Your task to perform on an android device: Open eBay Image 0: 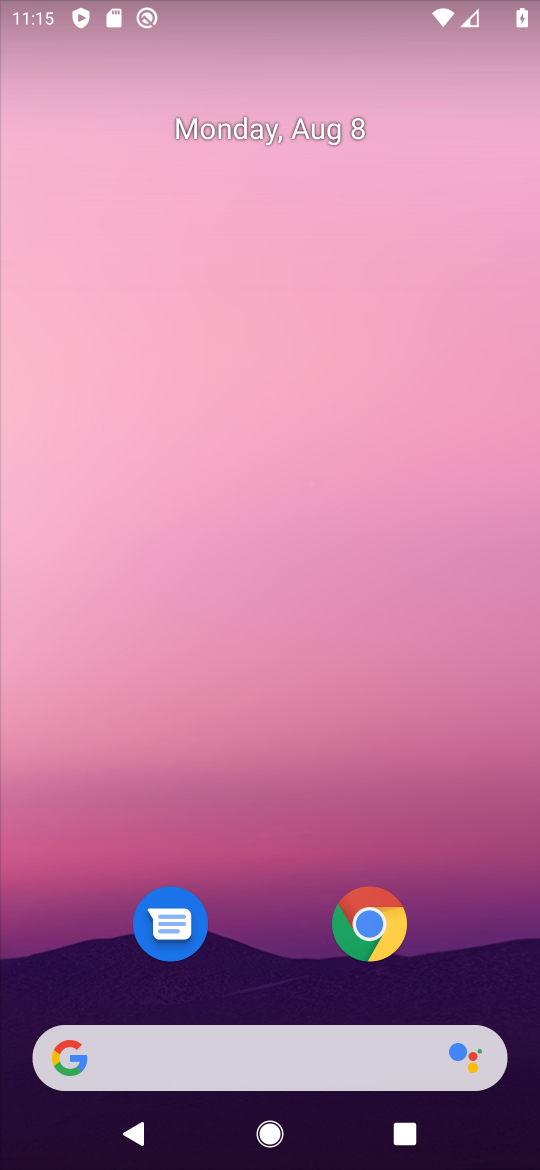
Step 0: click (370, 944)
Your task to perform on an android device: Open eBay Image 1: 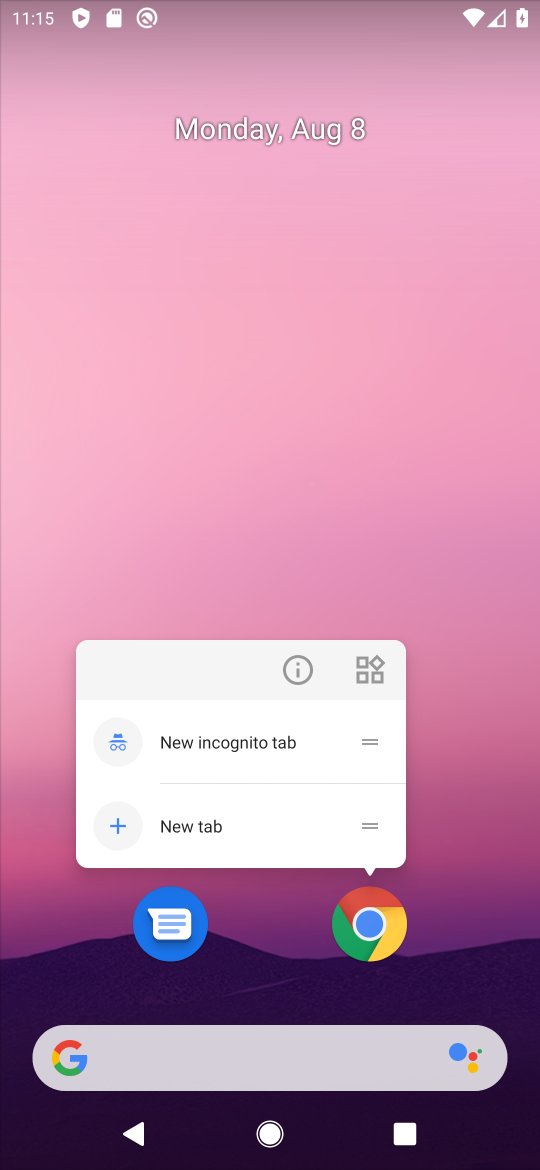
Step 1: click (370, 944)
Your task to perform on an android device: Open eBay Image 2: 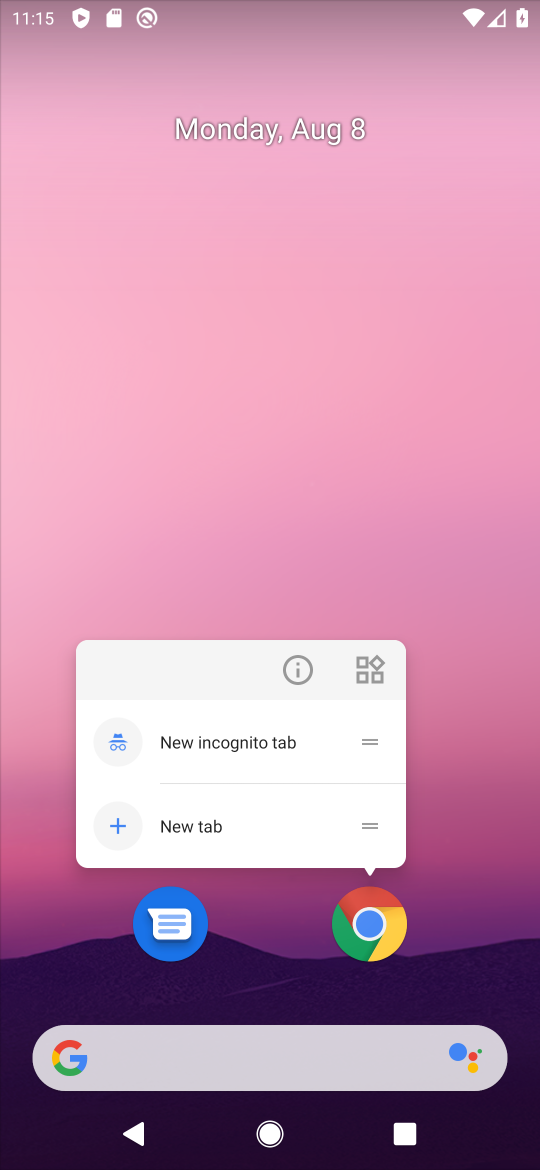
Step 2: click (371, 942)
Your task to perform on an android device: Open eBay Image 3: 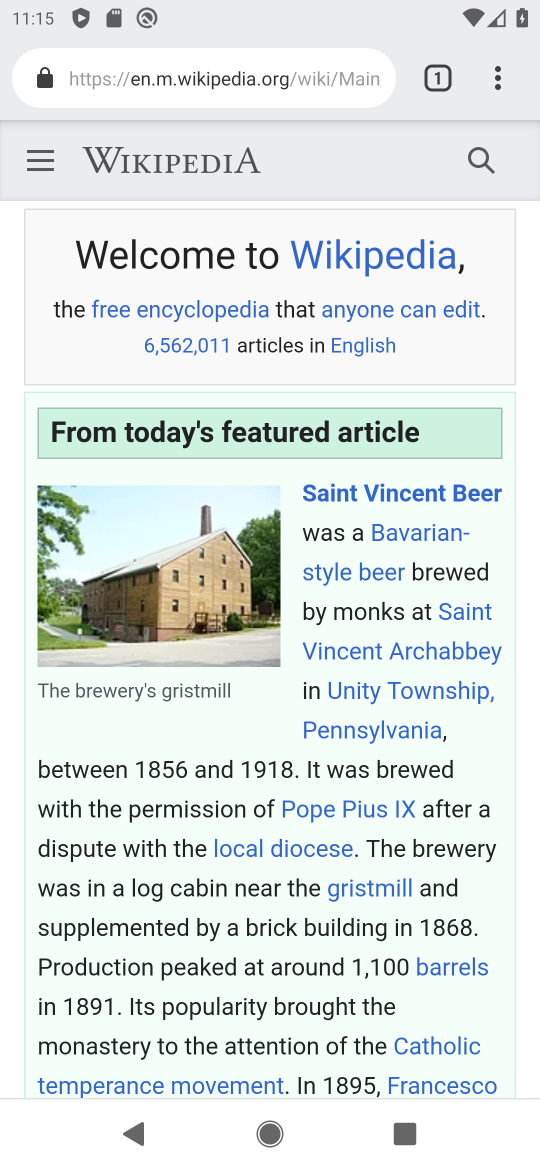
Step 3: click (433, 90)
Your task to perform on an android device: Open eBay Image 4: 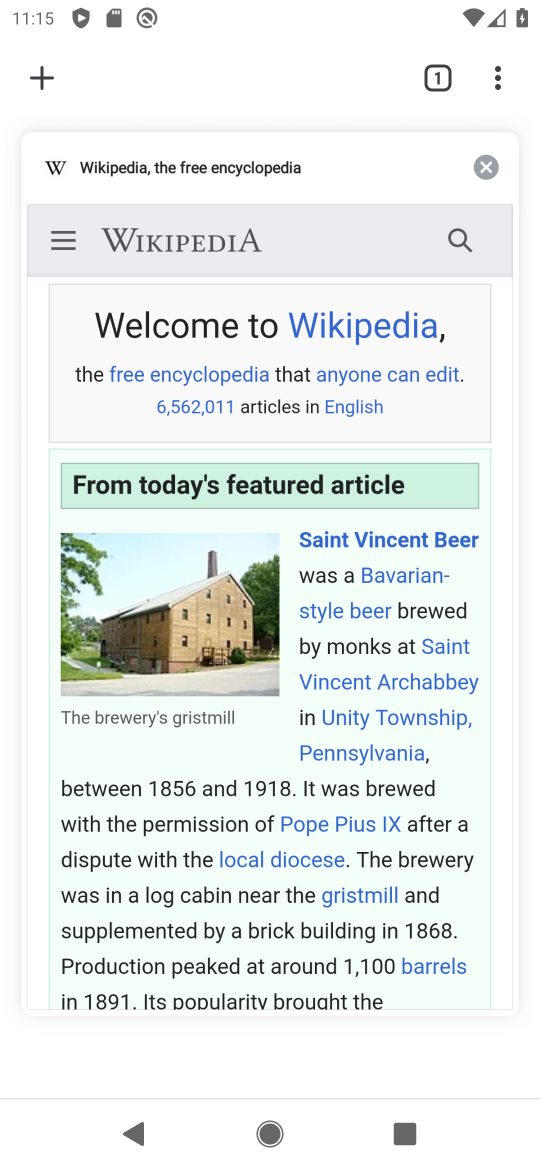
Step 4: click (48, 74)
Your task to perform on an android device: Open eBay Image 5: 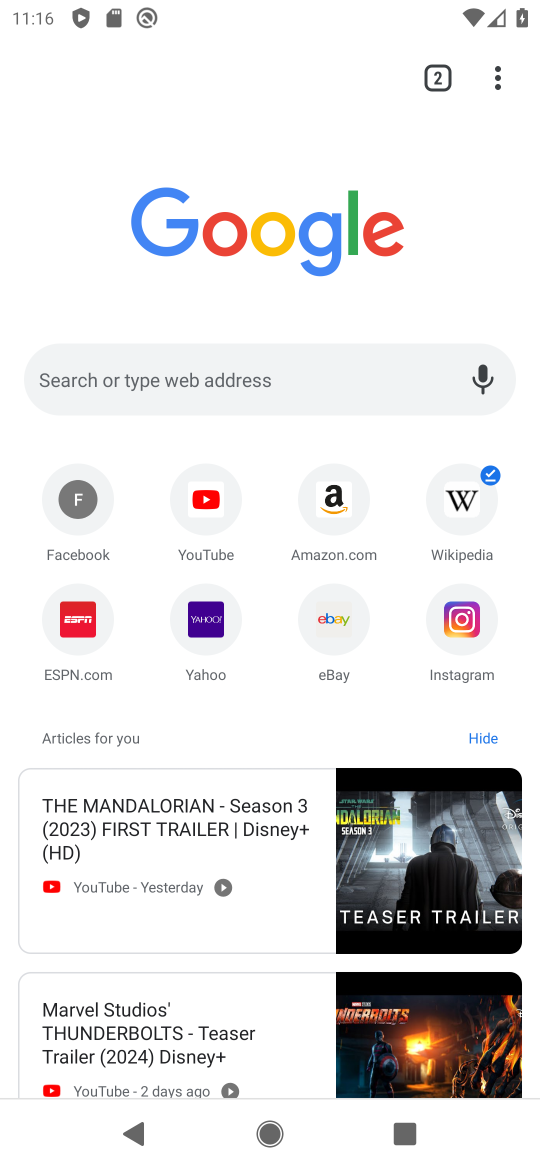
Step 5: click (319, 601)
Your task to perform on an android device: Open eBay Image 6: 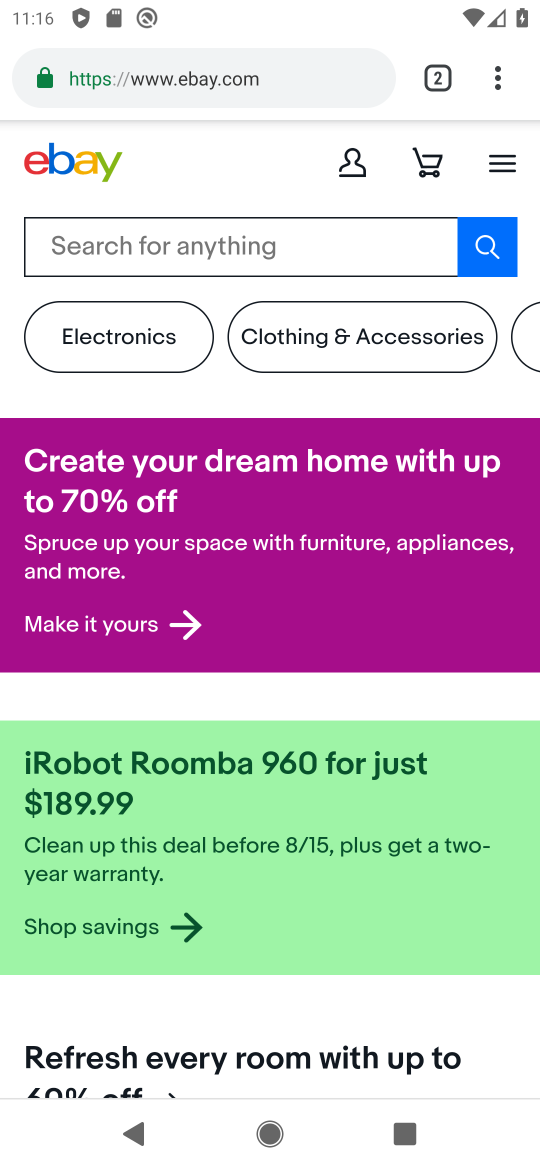
Step 6: task complete